Your task to perform on an android device: What is the speed of a cheetah? Image 0: 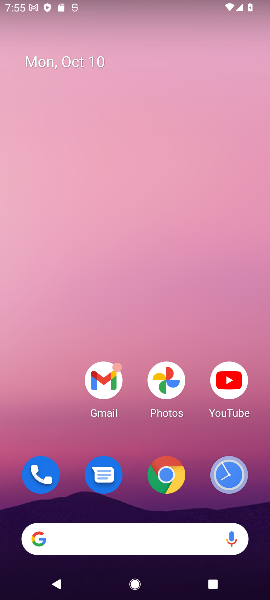
Step 0: click (167, 474)
Your task to perform on an android device: What is the speed of a cheetah? Image 1: 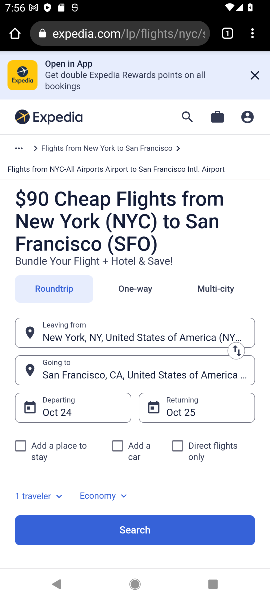
Step 1: click (96, 33)
Your task to perform on an android device: What is the speed of a cheetah? Image 2: 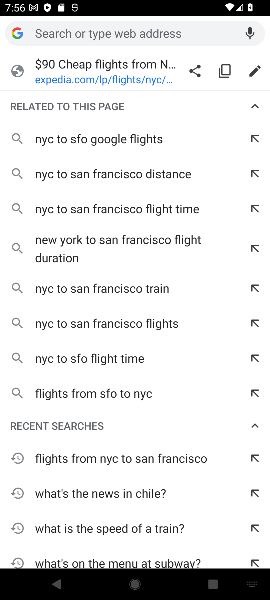
Step 2: type "What is the speed of a cheetah?"
Your task to perform on an android device: What is the speed of a cheetah? Image 3: 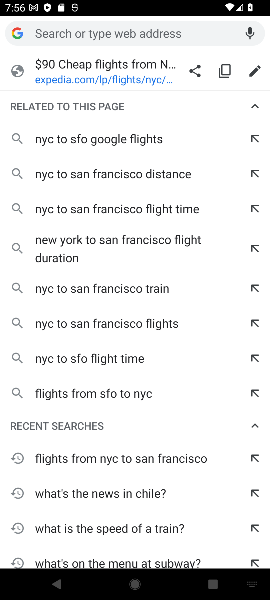
Step 3: click (101, 31)
Your task to perform on an android device: What is the speed of a cheetah? Image 4: 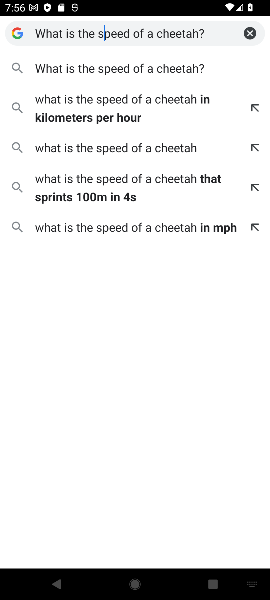
Step 4: click (139, 66)
Your task to perform on an android device: What is the speed of a cheetah? Image 5: 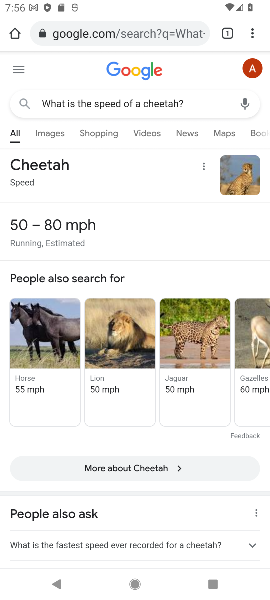
Step 5: task complete